Your task to perform on an android device: Open eBay Image 0: 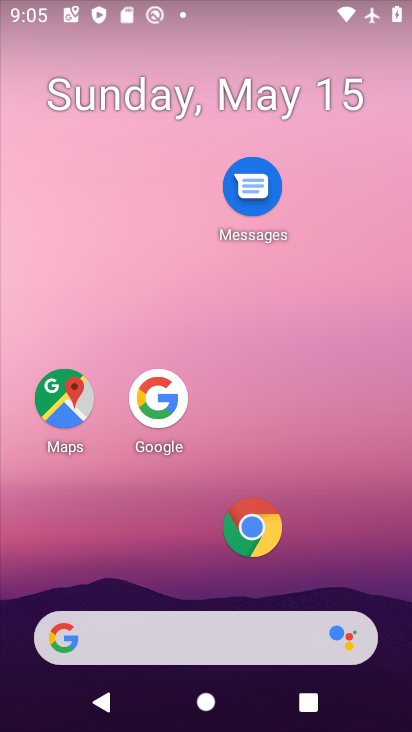
Step 0: press home button
Your task to perform on an android device: Open eBay Image 1: 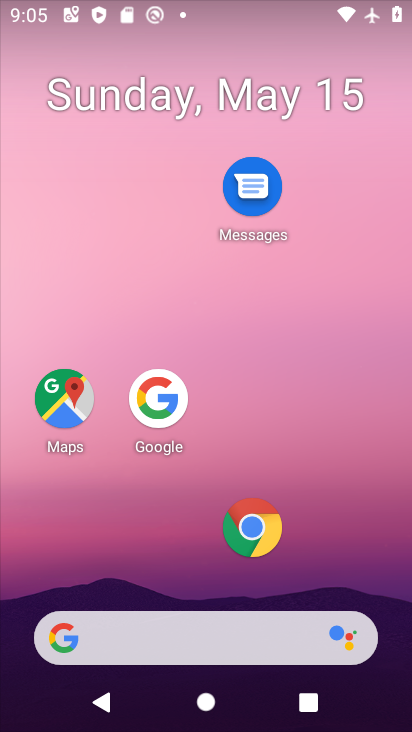
Step 1: click (267, 524)
Your task to perform on an android device: Open eBay Image 2: 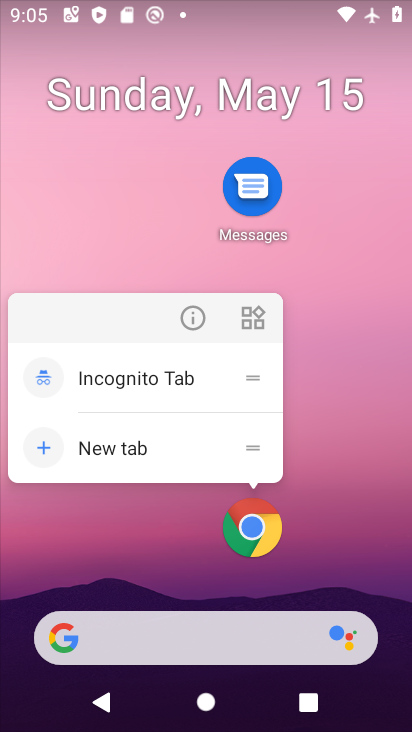
Step 2: click (267, 524)
Your task to perform on an android device: Open eBay Image 3: 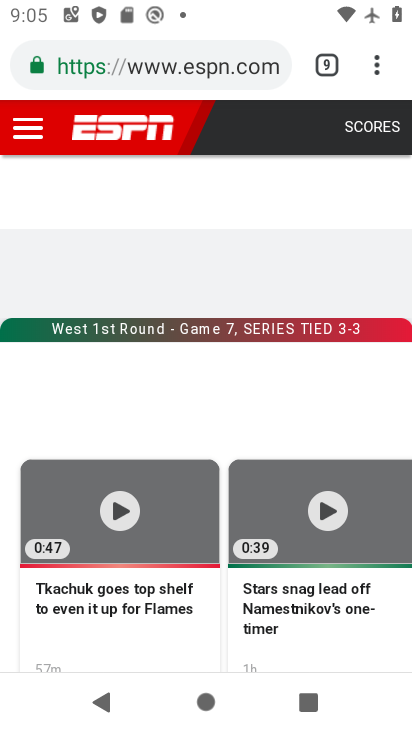
Step 3: drag from (373, 71) to (291, 132)
Your task to perform on an android device: Open eBay Image 4: 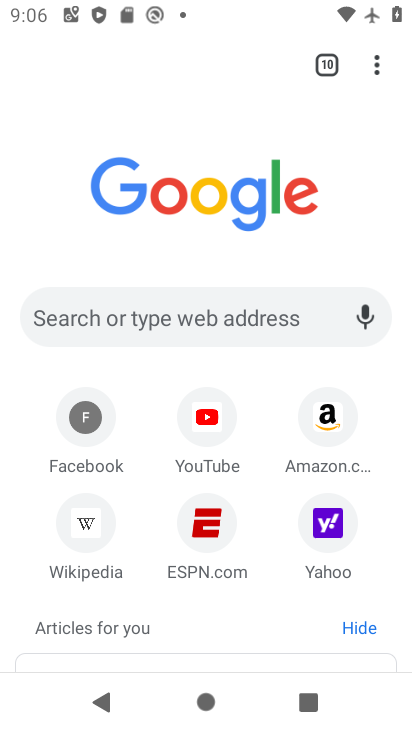
Step 4: click (180, 313)
Your task to perform on an android device: Open eBay Image 5: 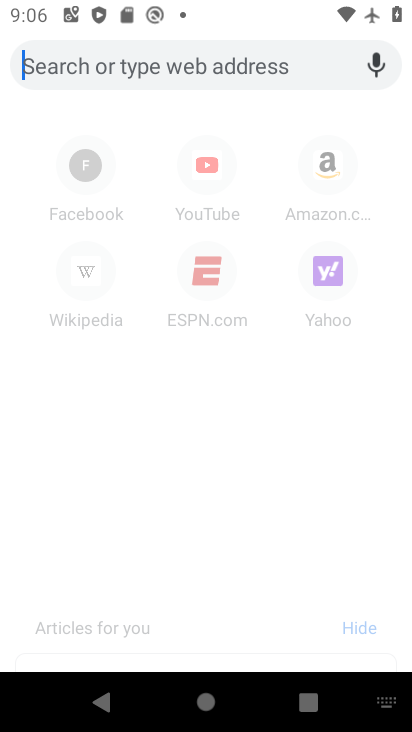
Step 5: type "ebay"
Your task to perform on an android device: Open eBay Image 6: 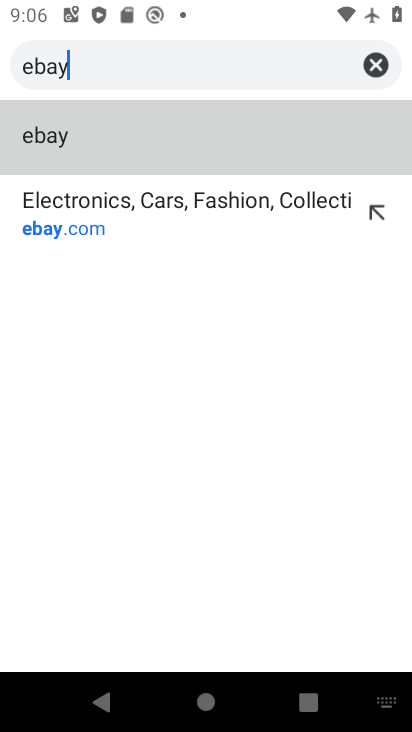
Step 6: click (222, 209)
Your task to perform on an android device: Open eBay Image 7: 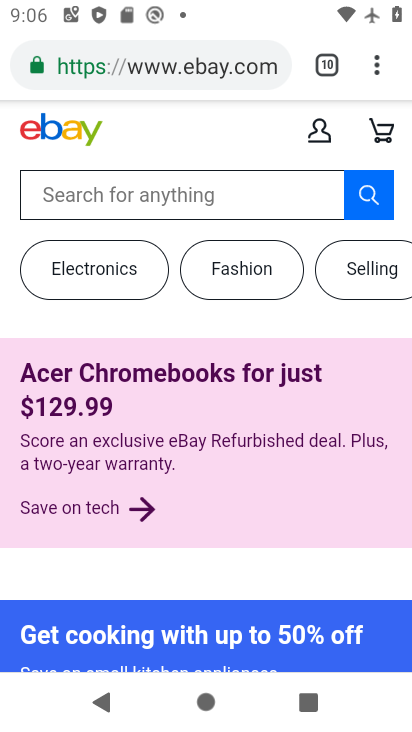
Step 7: task complete